Your task to perform on an android device: toggle sleep mode Image 0: 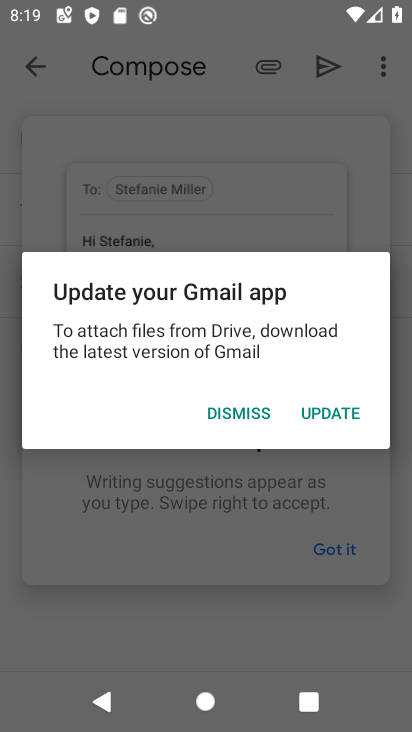
Step 0: press home button
Your task to perform on an android device: toggle sleep mode Image 1: 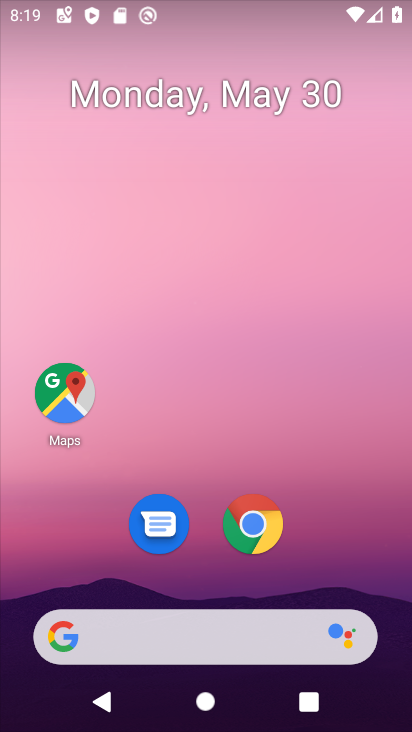
Step 1: drag from (290, 535) to (376, 30)
Your task to perform on an android device: toggle sleep mode Image 2: 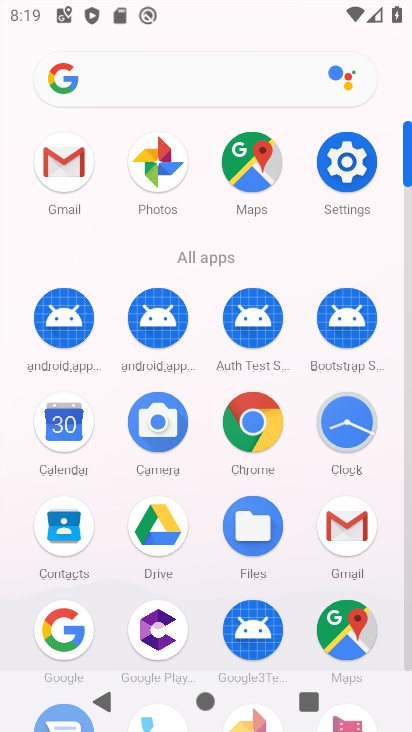
Step 2: click (347, 152)
Your task to perform on an android device: toggle sleep mode Image 3: 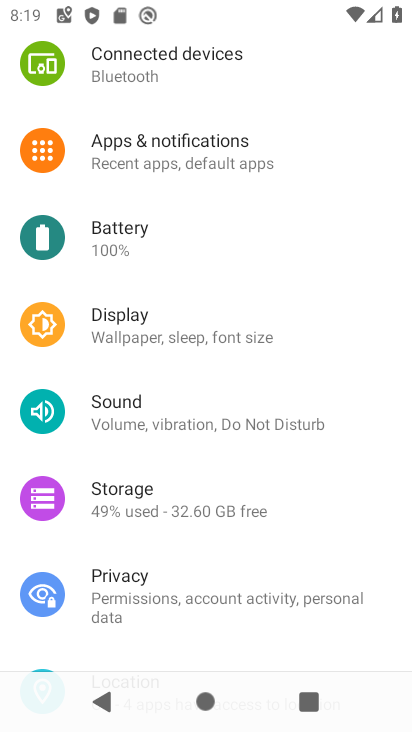
Step 3: click (222, 333)
Your task to perform on an android device: toggle sleep mode Image 4: 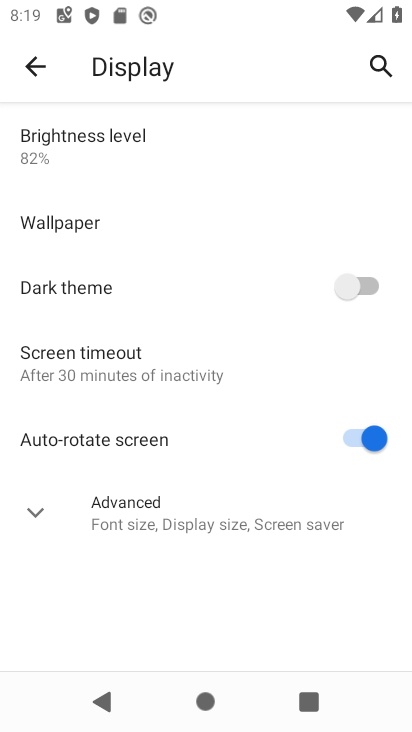
Step 4: click (43, 506)
Your task to perform on an android device: toggle sleep mode Image 5: 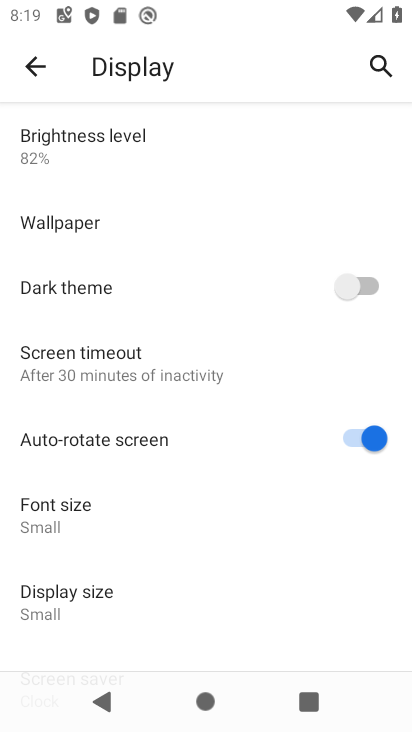
Step 5: task complete